Your task to perform on an android device: Open notification settings Image 0: 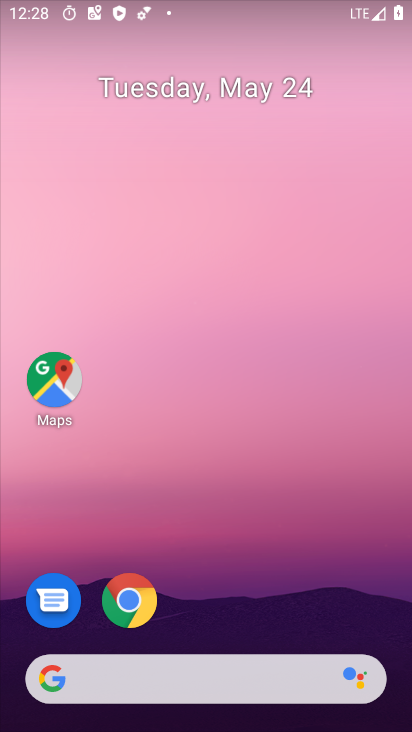
Step 0: drag from (272, 620) to (242, 146)
Your task to perform on an android device: Open notification settings Image 1: 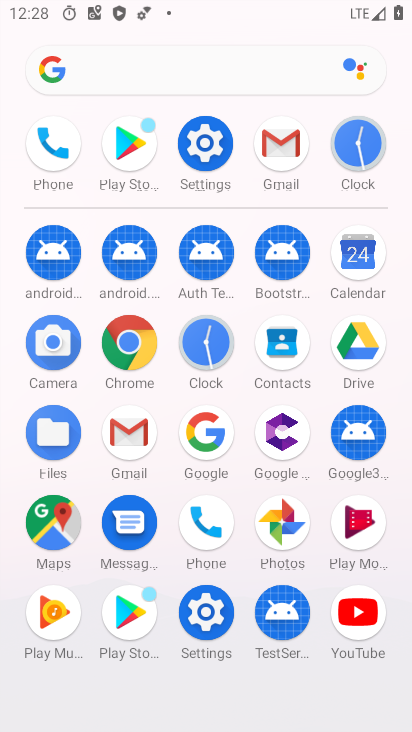
Step 1: click (205, 142)
Your task to perform on an android device: Open notification settings Image 2: 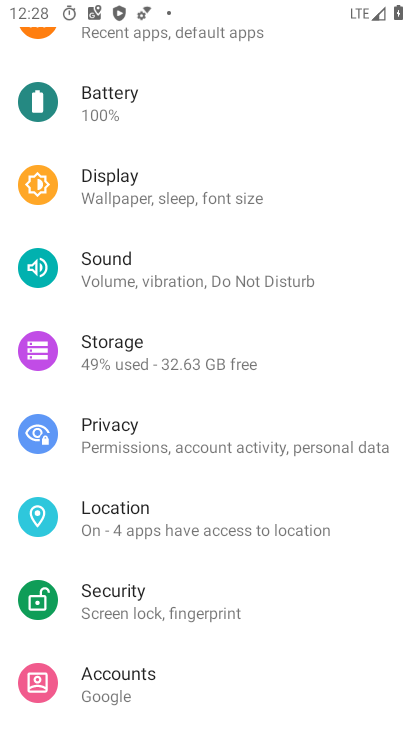
Step 2: drag from (145, 213) to (169, 619)
Your task to perform on an android device: Open notification settings Image 3: 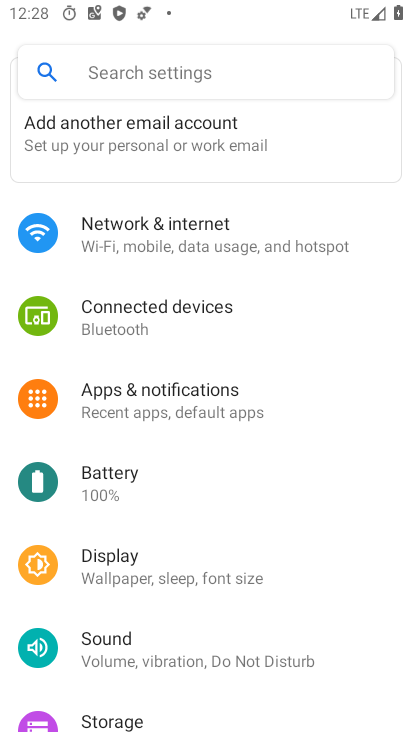
Step 3: click (154, 400)
Your task to perform on an android device: Open notification settings Image 4: 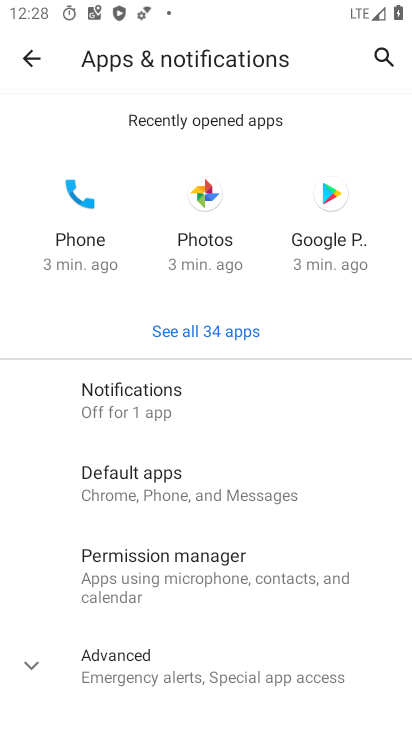
Step 4: click (160, 400)
Your task to perform on an android device: Open notification settings Image 5: 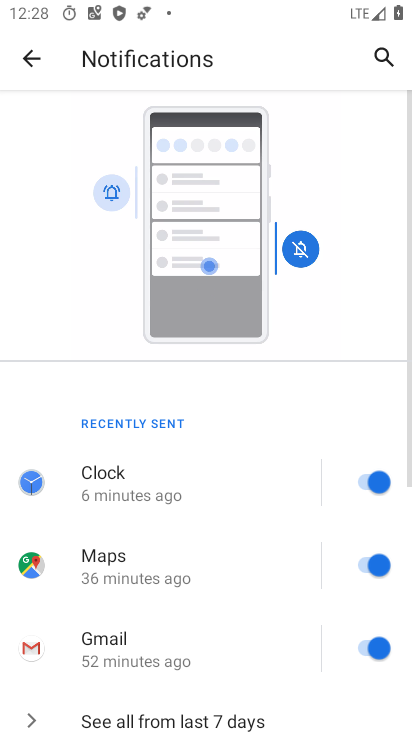
Step 5: task complete